Your task to perform on an android device: turn off notifications settings in the gmail app Image 0: 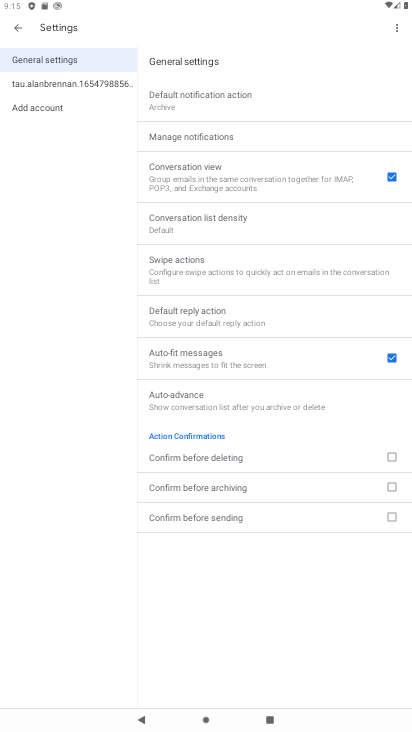
Step 0: press home button
Your task to perform on an android device: turn off notifications settings in the gmail app Image 1: 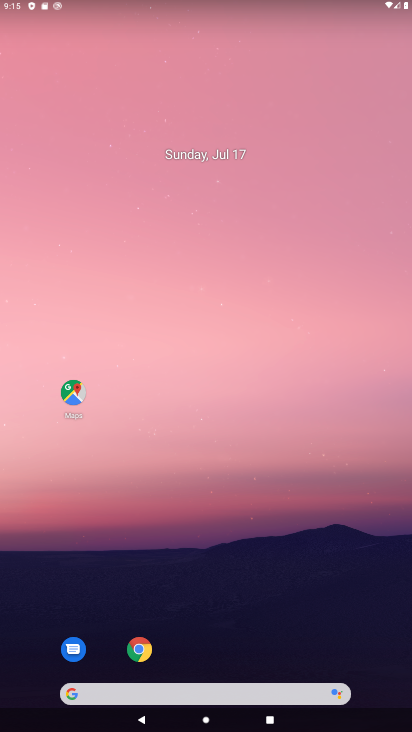
Step 1: drag from (31, 667) to (236, 44)
Your task to perform on an android device: turn off notifications settings in the gmail app Image 2: 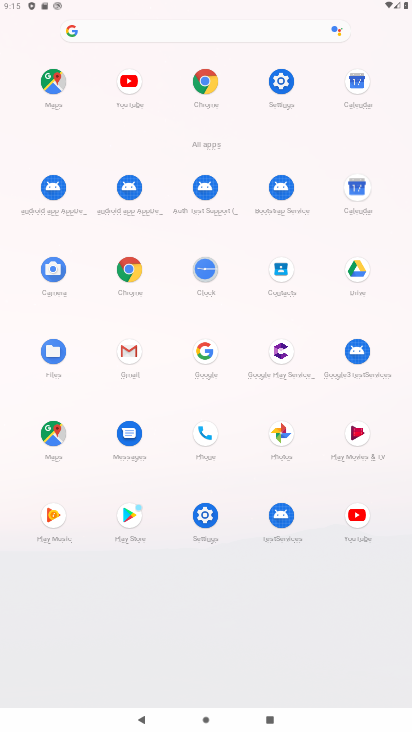
Step 2: click (132, 358)
Your task to perform on an android device: turn off notifications settings in the gmail app Image 3: 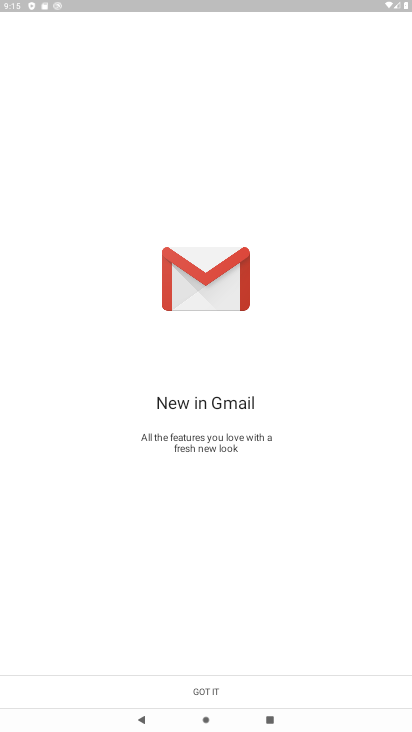
Step 3: click (212, 681)
Your task to perform on an android device: turn off notifications settings in the gmail app Image 4: 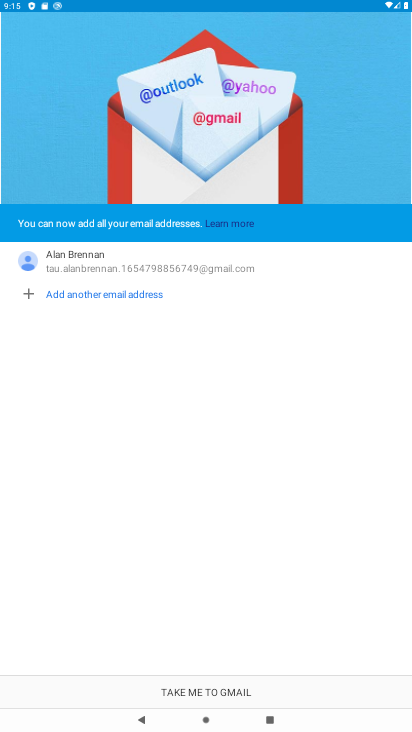
Step 4: click (206, 689)
Your task to perform on an android device: turn off notifications settings in the gmail app Image 5: 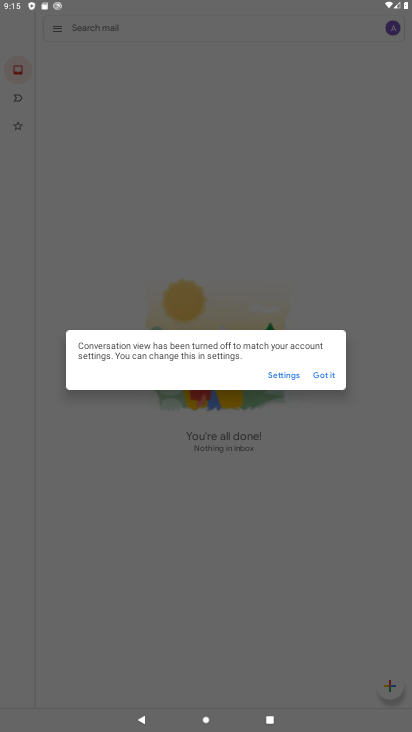
Step 5: click (327, 375)
Your task to perform on an android device: turn off notifications settings in the gmail app Image 6: 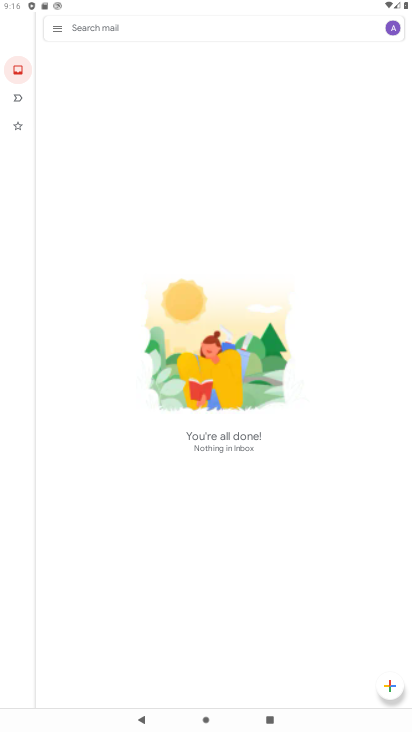
Step 6: click (53, 31)
Your task to perform on an android device: turn off notifications settings in the gmail app Image 7: 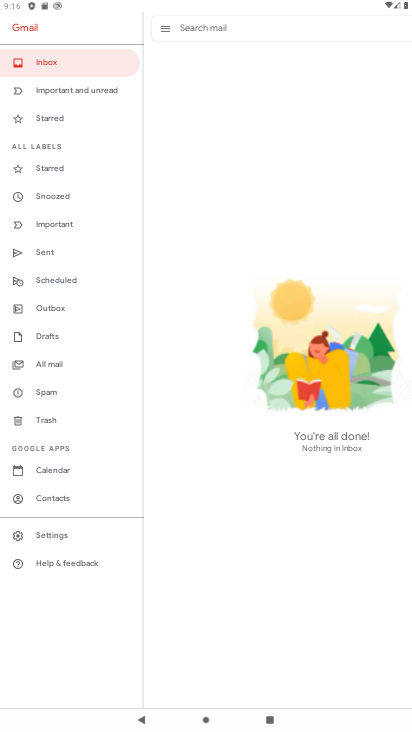
Step 7: click (60, 537)
Your task to perform on an android device: turn off notifications settings in the gmail app Image 8: 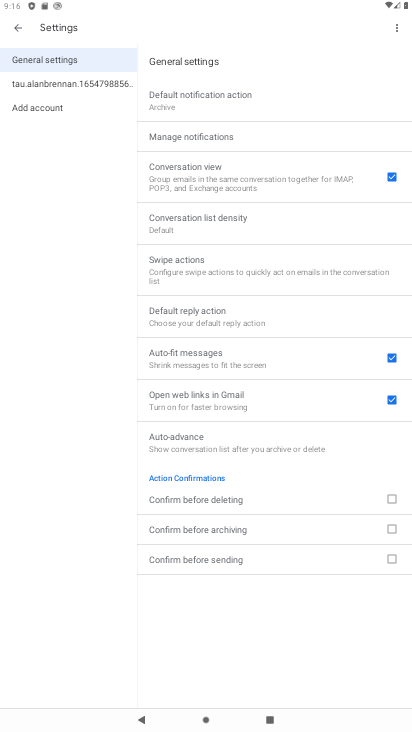
Step 8: click (211, 133)
Your task to perform on an android device: turn off notifications settings in the gmail app Image 9: 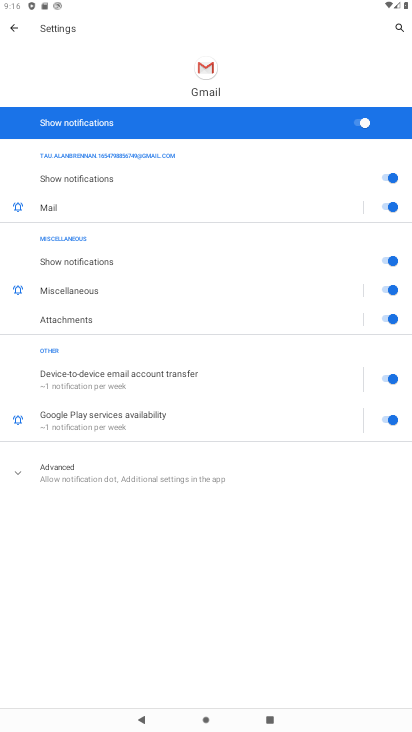
Step 9: click (387, 172)
Your task to perform on an android device: turn off notifications settings in the gmail app Image 10: 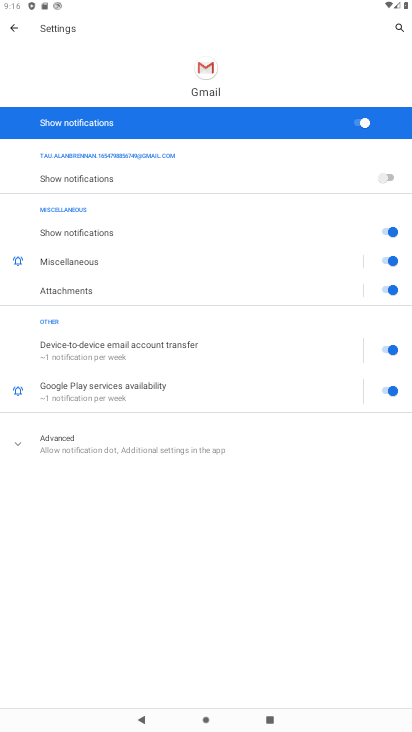
Step 10: task complete